Your task to perform on an android device: change the clock style Image 0: 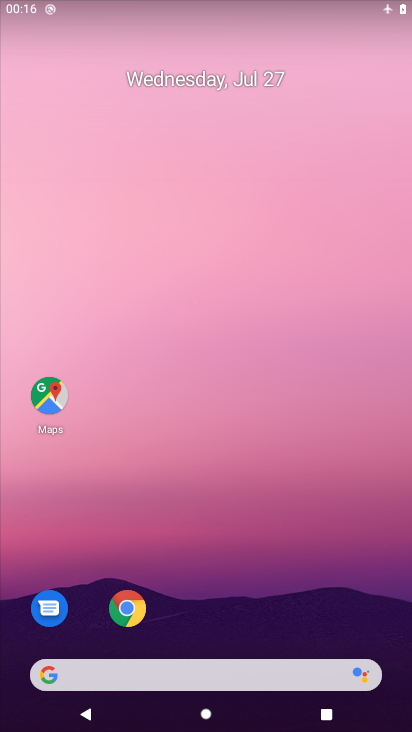
Step 0: press home button
Your task to perform on an android device: change the clock style Image 1: 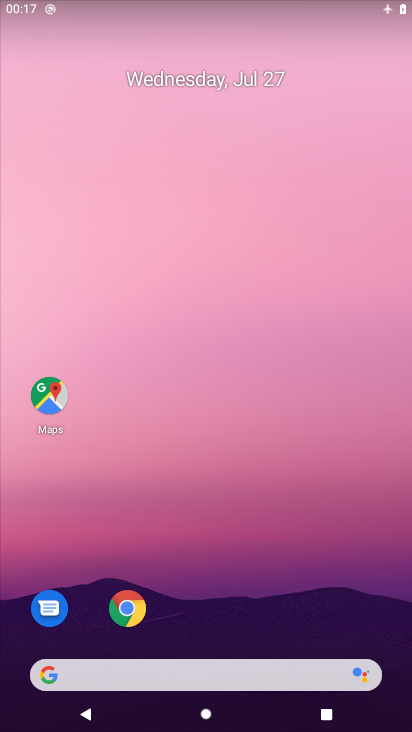
Step 1: drag from (208, 562) to (166, 73)
Your task to perform on an android device: change the clock style Image 2: 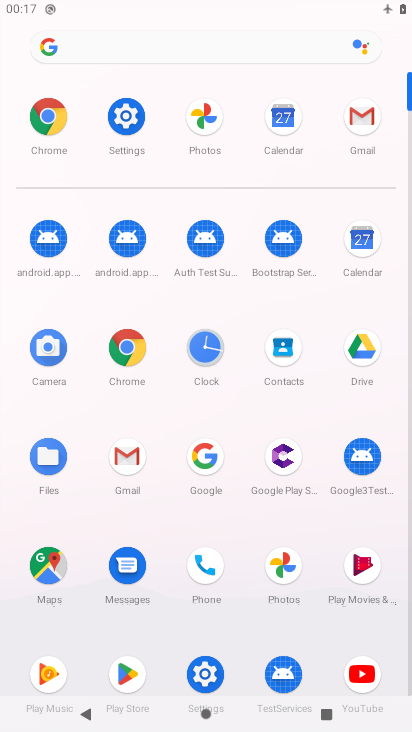
Step 2: click (199, 352)
Your task to perform on an android device: change the clock style Image 3: 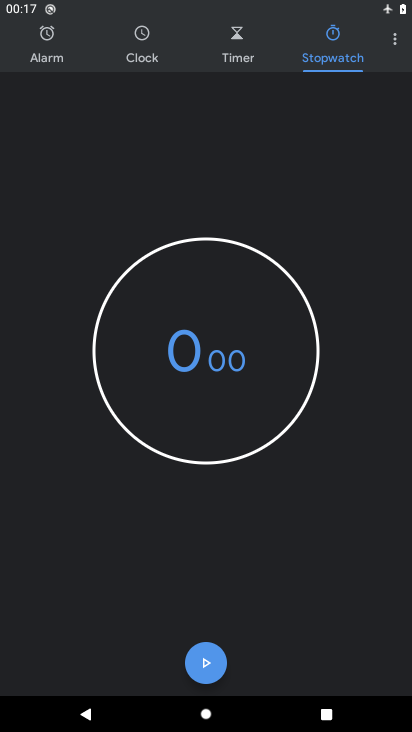
Step 3: click (394, 40)
Your task to perform on an android device: change the clock style Image 4: 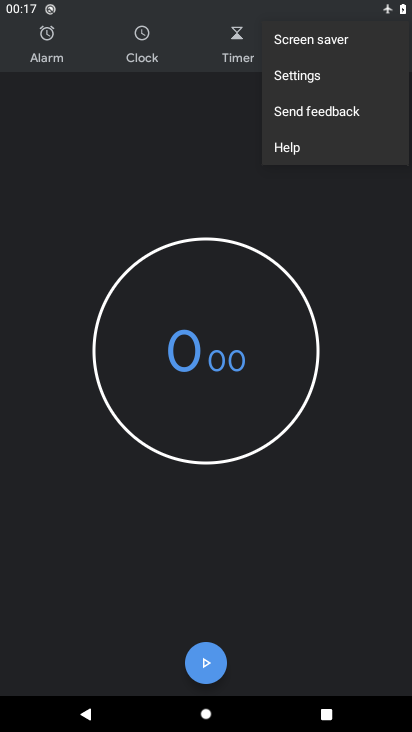
Step 4: click (303, 78)
Your task to perform on an android device: change the clock style Image 5: 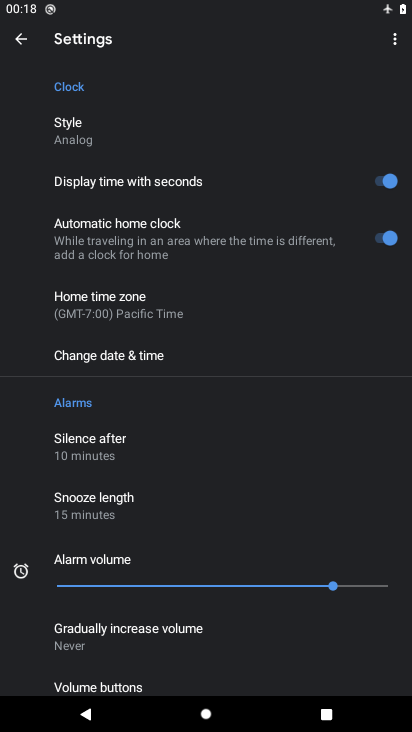
Step 5: click (79, 134)
Your task to perform on an android device: change the clock style Image 6: 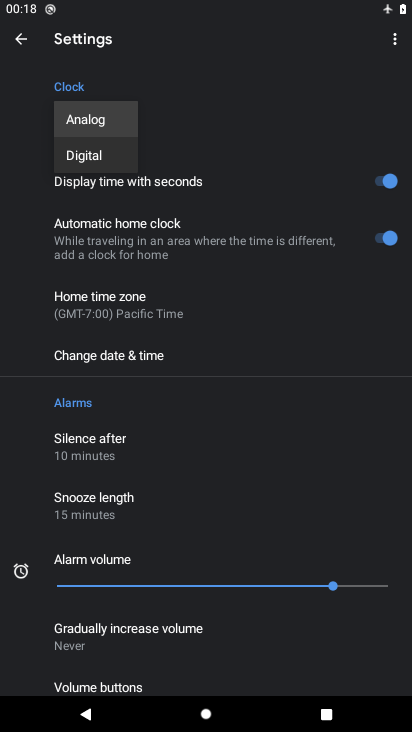
Step 6: click (81, 162)
Your task to perform on an android device: change the clock style Image 7: 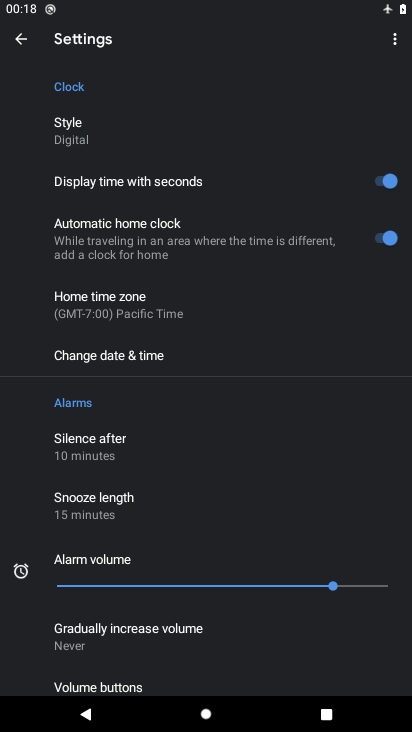
Step 7: task complete